Your task to perform on an android device: turn off javascript in the chrome app Image 0: 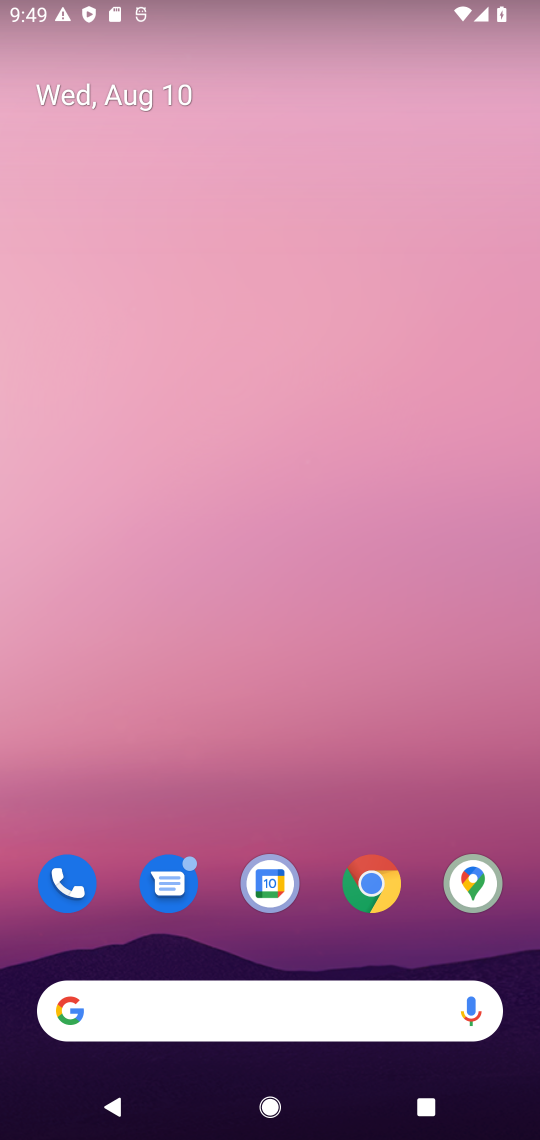
Step 0: drag from (353, 948) to (358, 115)
Your task to perform on an android device: turn off javascript in the chrome app Image 1: 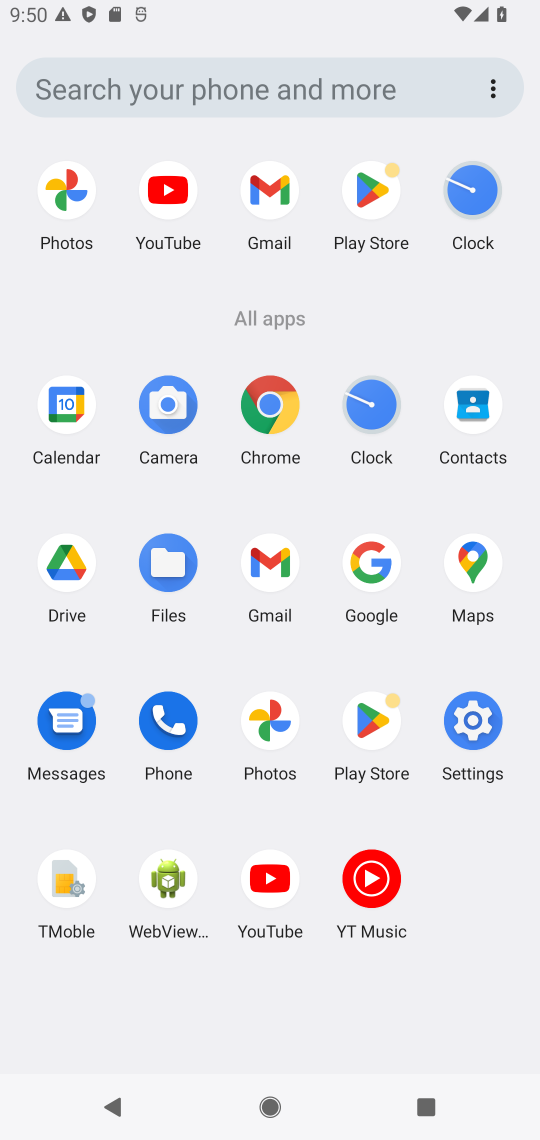
Step 1: click (270, 391)
Your task to perform on an android device: turn off javascript in the chrome app Image 2: 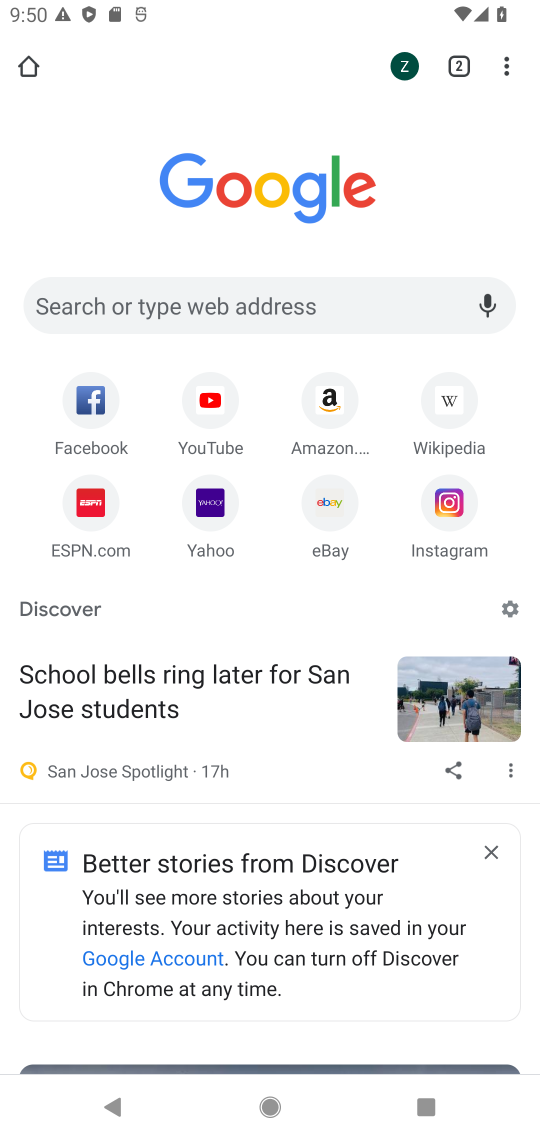
Step 2: drag from (492, 79) to (341, 654)
Your task to perform on an android device: turn off javascript in the chrome app Image 3: 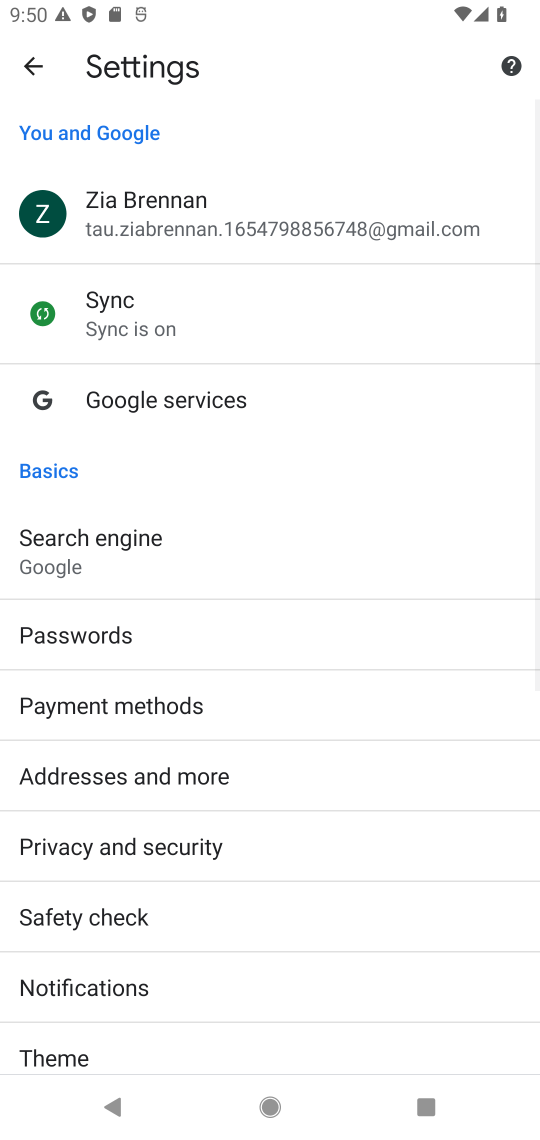
Step 3: drag from (175, 874) to (226, 245)
Your task to perform on an android device: turn off javascript in the chrome app Image 4: 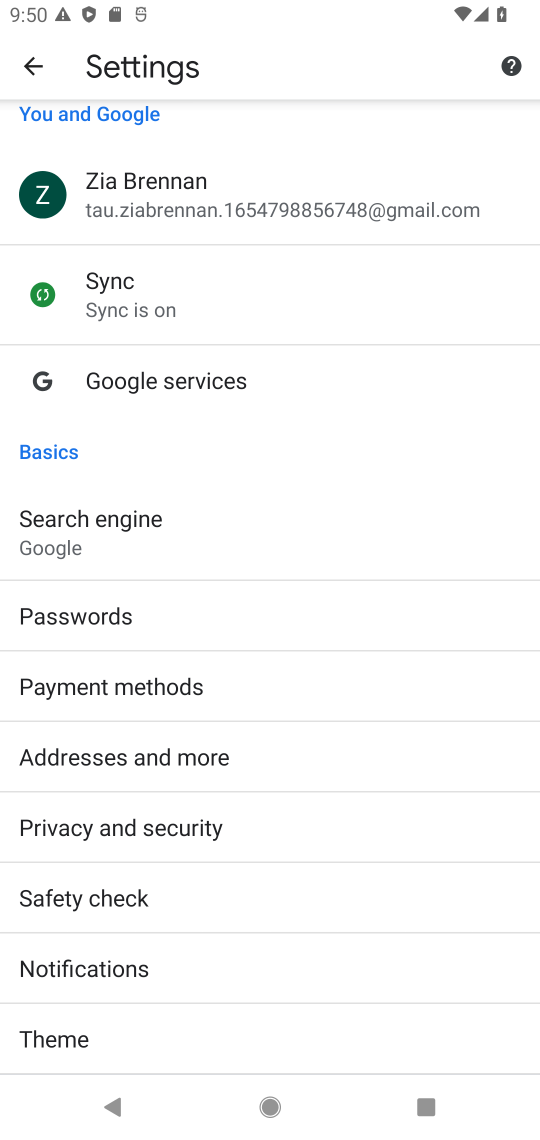
Step 4: drag from (185, 888) to (147, 207)
Your task to perform on an android device: turn off javascript in the chrome app Image 5: 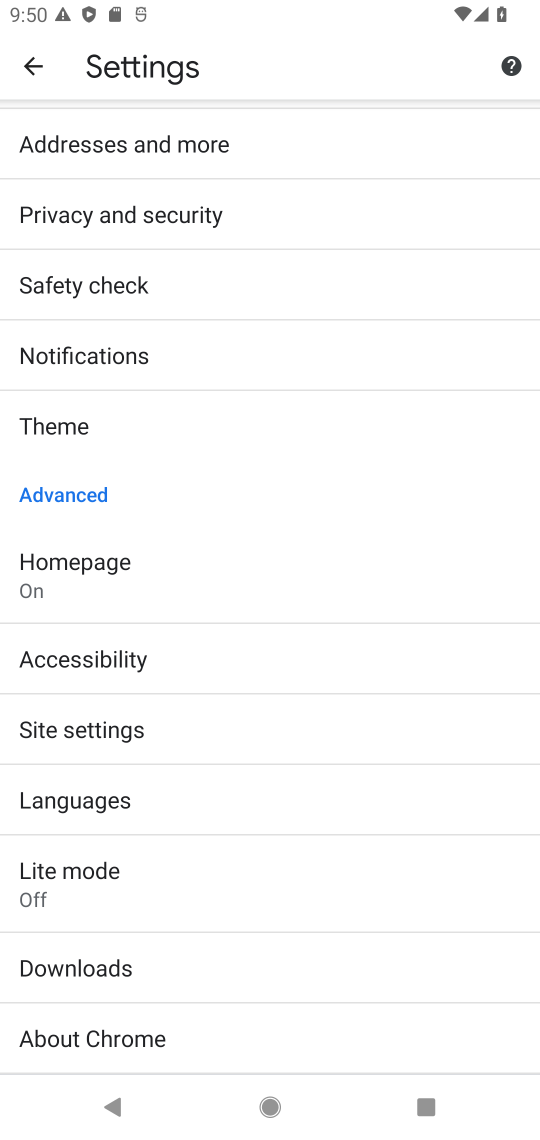
Step 5: click (51, 731)
Your task to perform on an android device: turn off javascript in the chrome app Image 6: 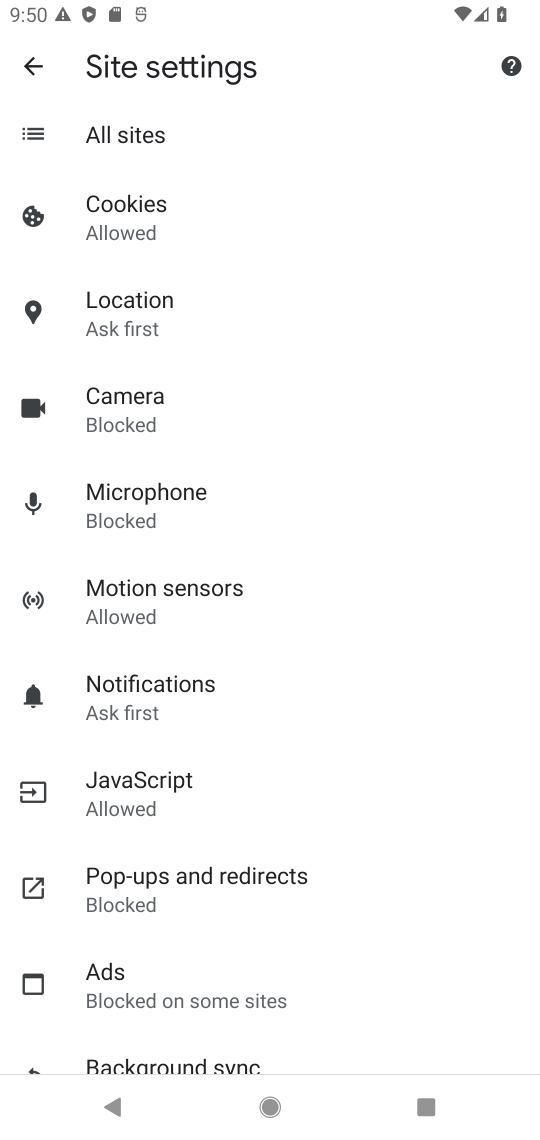
Step 6: click (129, 812)
Your task to perform on an android device: turn off javascript in the chrome app Image 7: 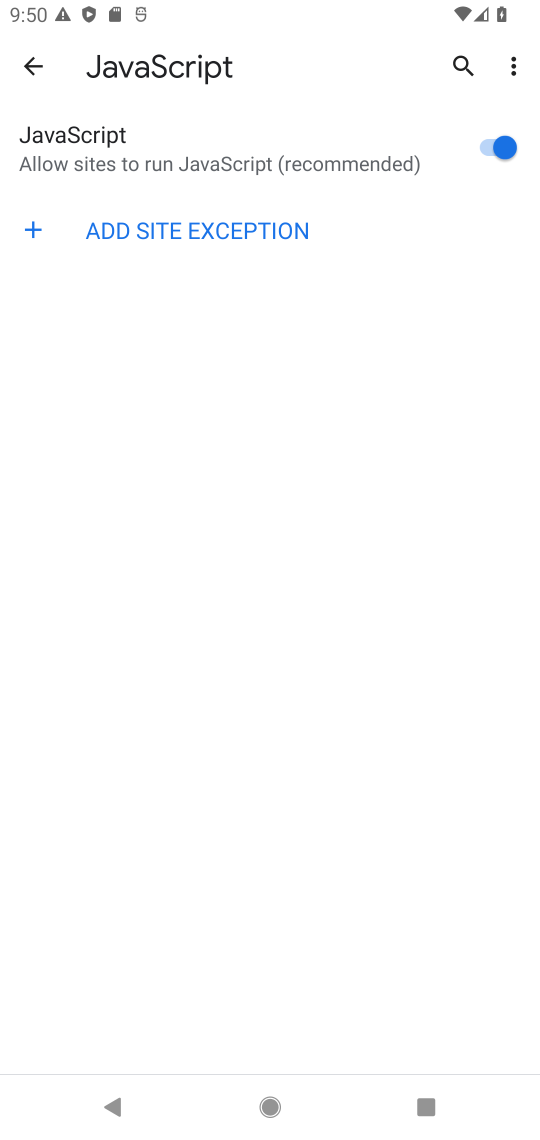
Step 7: click (245, 153)
Your task to perform on an android device: turn off javascript in the chrome app Image 8: 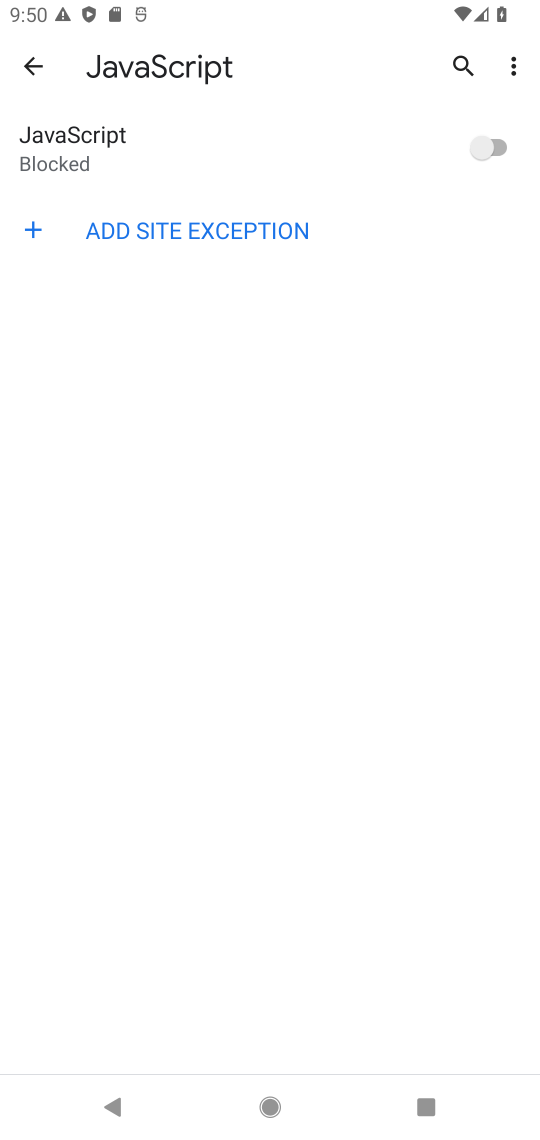
Step 8: task complete